Your task to perform on an android device: Search for Mexican restaurants on Maps Image 0: 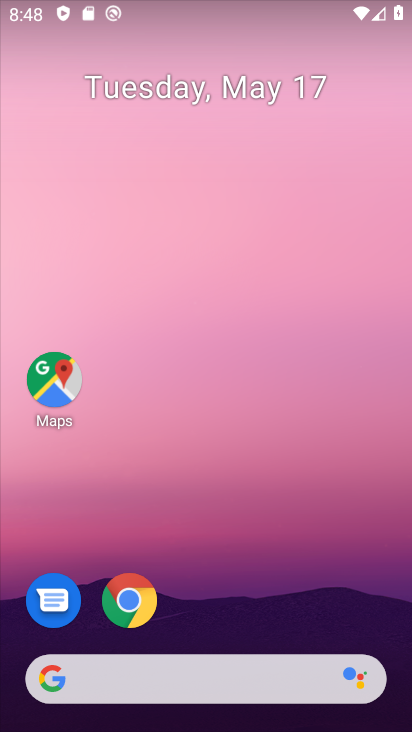
Step 0: click (38, 370)
Your task to perform on an android device: Search for Mexican restaurants on Maps Image 1: 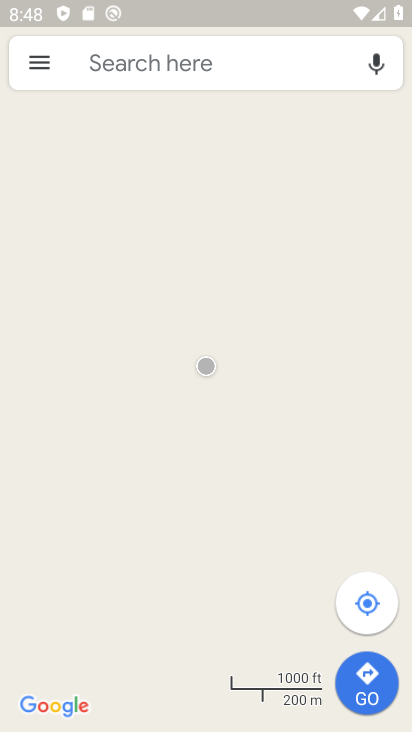
Step 1: click (207, 51)
Your task to perform on an android device: Search for Mexican restaurants on Maps Image 2: 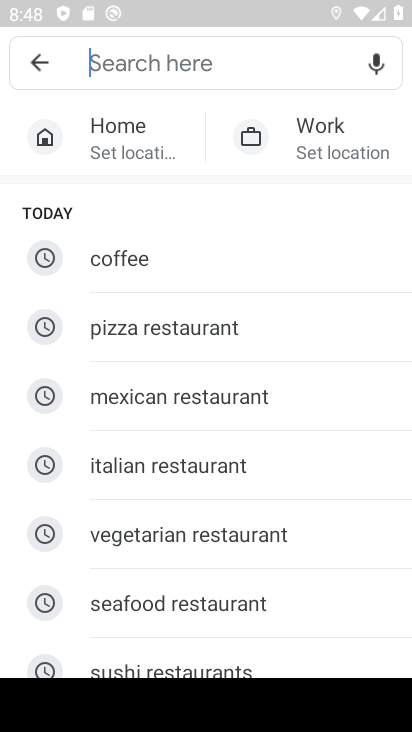
Step 2: click (269, 398)
Your task to perform on an android device: Search for Mexican restaurants on Maps Image 3: 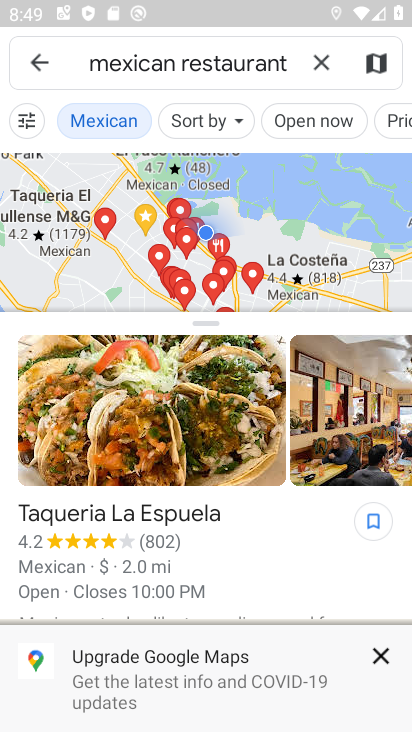
Step 3: task complete